Your task to perform on an android device: Go to sound settings Image 0: 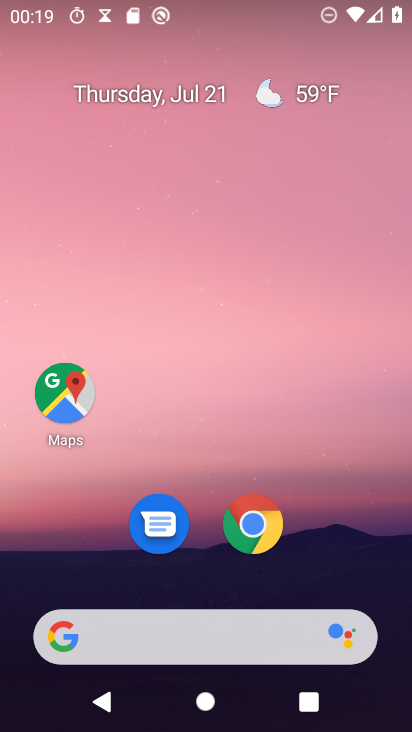
Step 0: drag from (221, 645) to (292, 246)
Your task to perform on an android device: Go to sound settings Image 1: 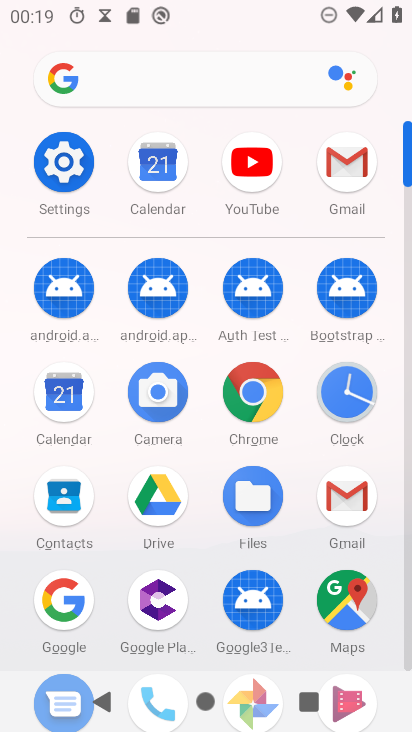
Step 1: click (64, 164)
Your task to perform on an android device: Go to sound settings Image 2: 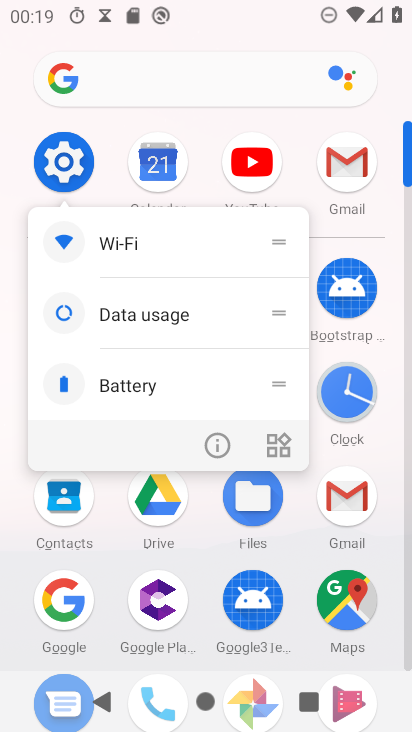
Step 2: click (65, 162)
Your task to perform on an android device: Go to sound settings Image 3: 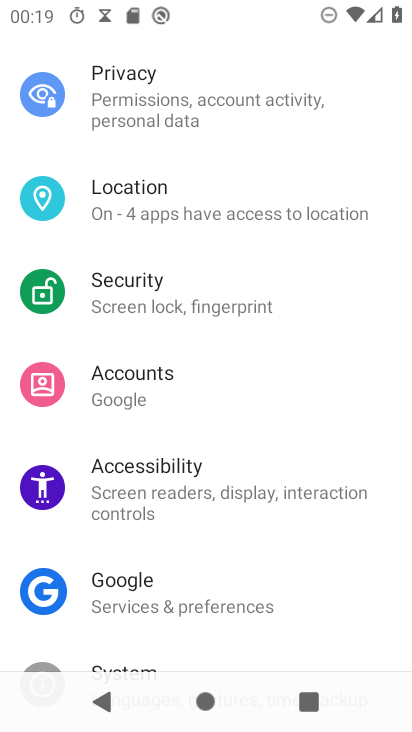
Step 3: drag from (329, 134) to (312, 502)
Your task to perform on an android device: Go to sound settings Image 4: 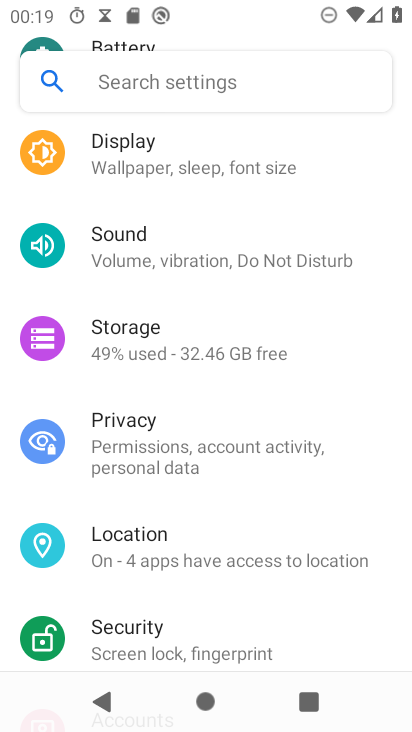
Step 4: click (126, 235)
Your task to perform on an android device: Go to sound settings Image 5: 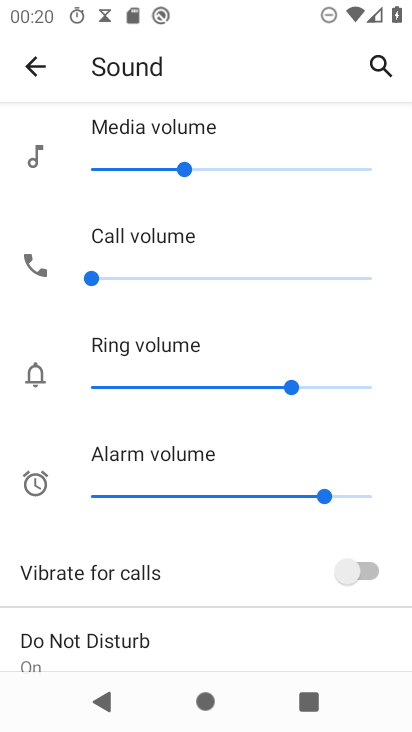
Step 5: task complete